Your task to perform on an android device: toggle notification dots Image 0: 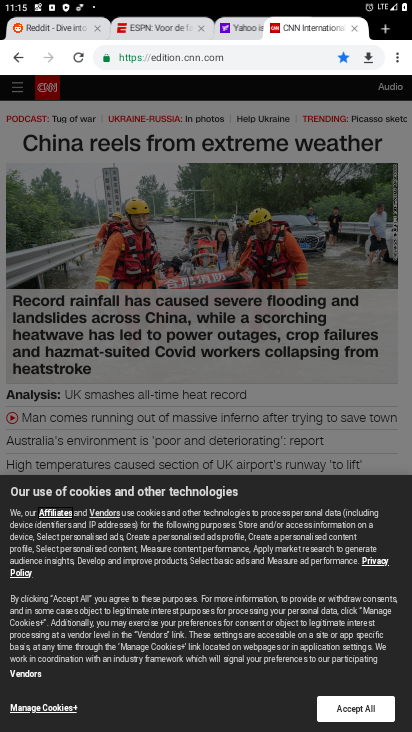
Step 0: press home button
Your task to perform on an android device: toggle notification dots Image 1: 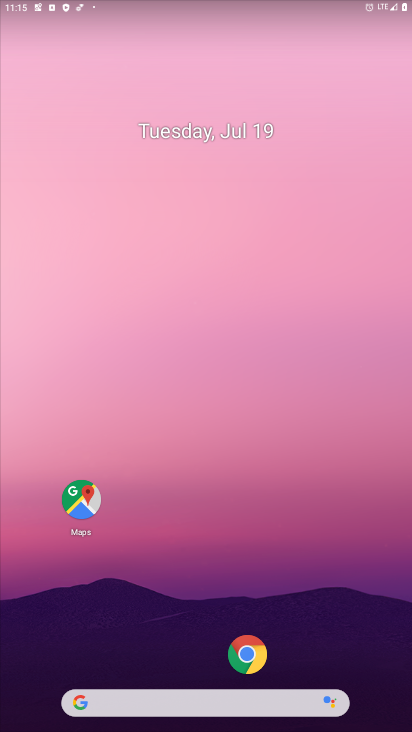
Step 1: drag from (174, 596) to (250, 193)
Your task to perform on an android device: toggle notification dots Image 2: 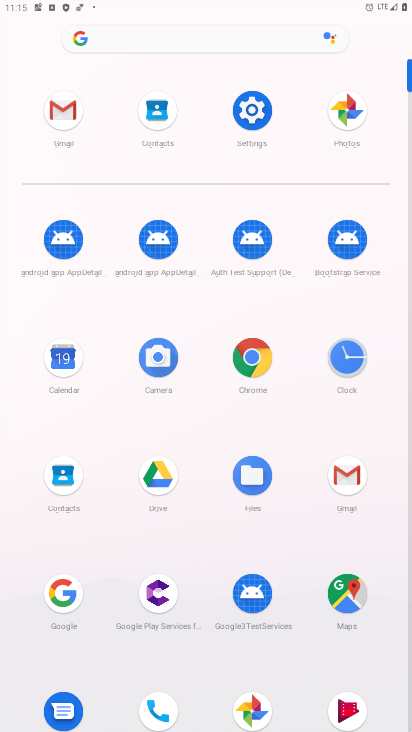
Step 2: click (265, 125)
Your task to perform on an android device: toggle notification dots Image 3: 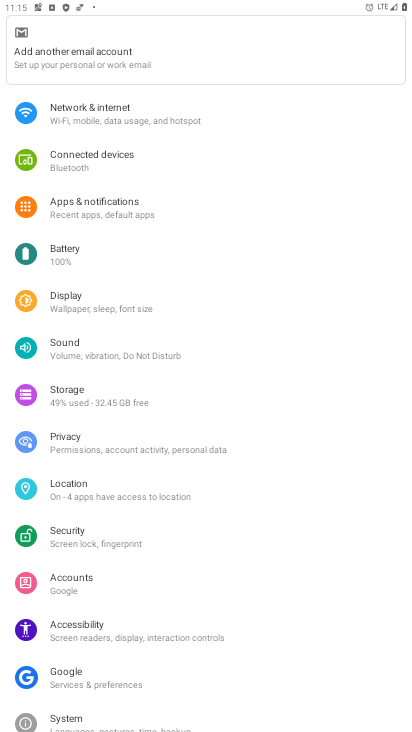
Step 3: click (90, 207)
Your task to perform on an android device: toggle notification dots Image 4: 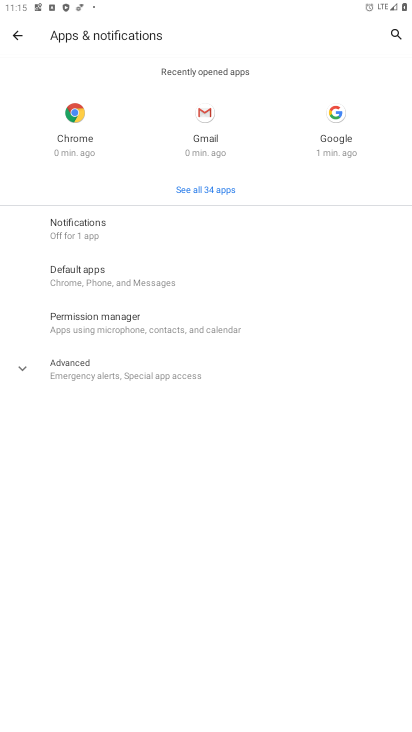
Step 4: click (90, 207)
Your task to perform on an android device: toggle notification dots Image 5: 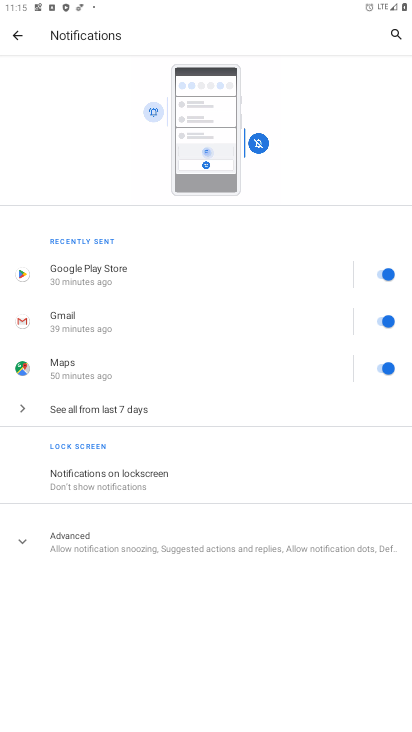
Step 5: click (147, 570)
Your task to perform on an android device: toggle notification dots Image 6: 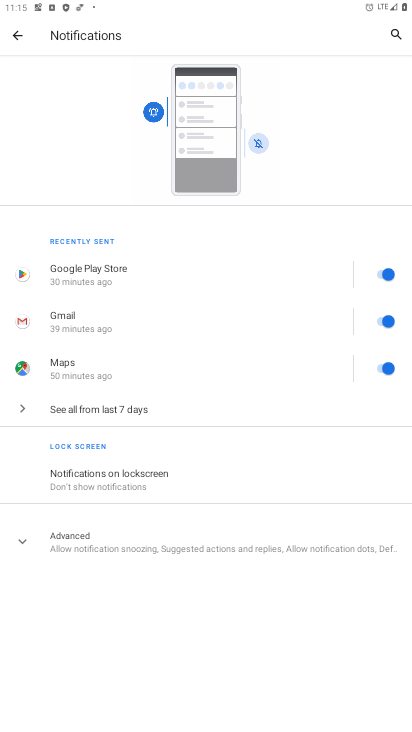
Step 6: click (130, 549)
Your task to perform on an android device: toggle notification dots Image 7: 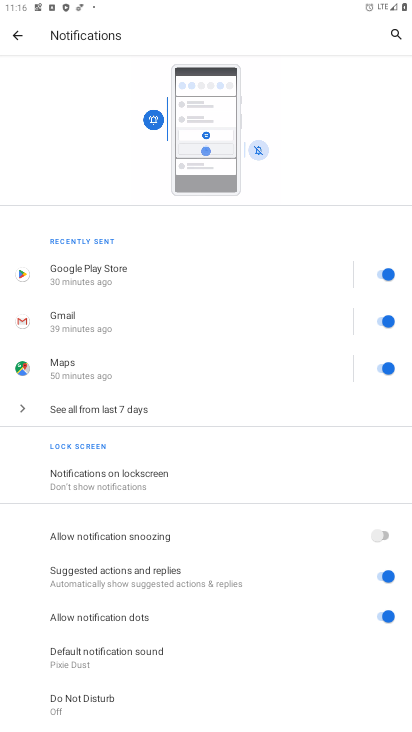
Step 7: click (380, 618)
Your task to perform on an android device: toggle notification dots Image 8: 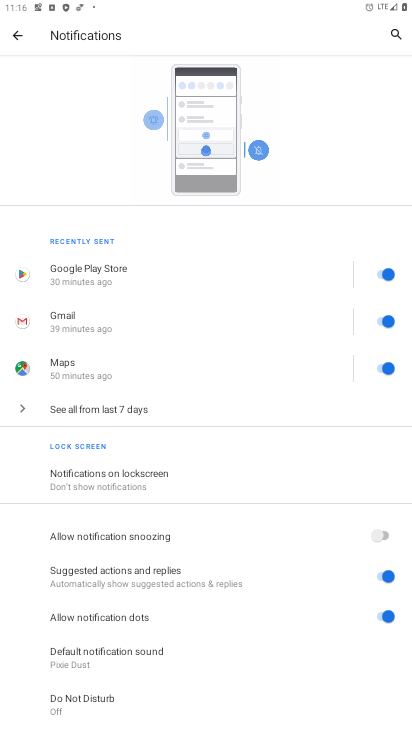
Step 8: click (380, 618)
Your task to perform on an android device: toggle notification dots Image 9: 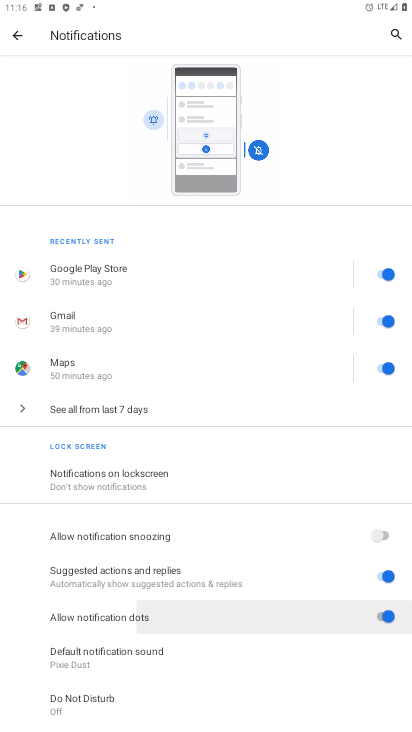
Step 9: click (380, 618)
Your task to perform on an android device: toggle notification dots Image 10: 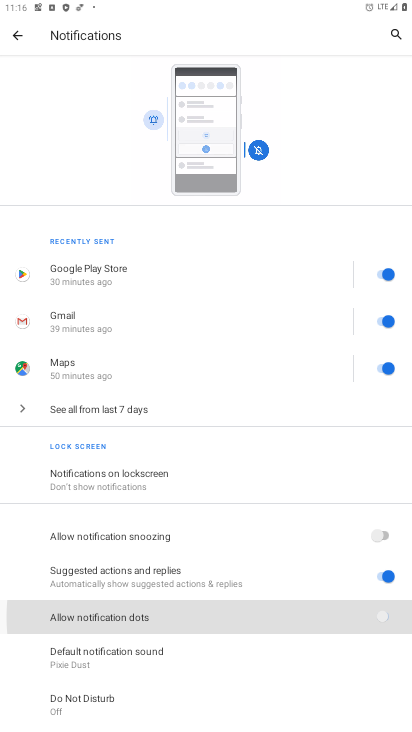
Step 10: click (380, 618)
Your task to perform on an android device: toggle notification dots Image 11: 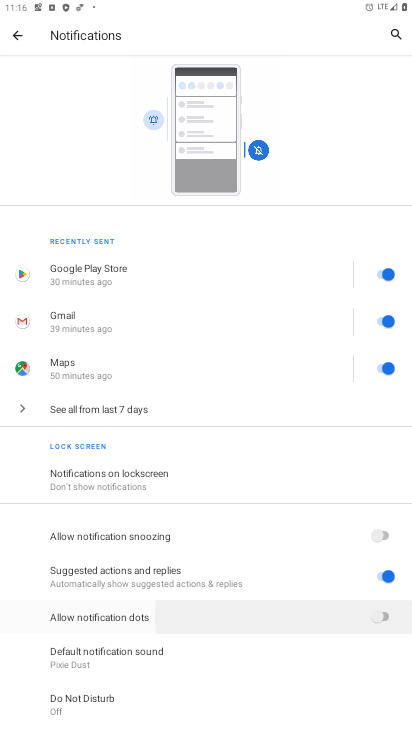
Step 11: click (380, 618)
Your task to perform on an android device: toggle notification dots Image 12: 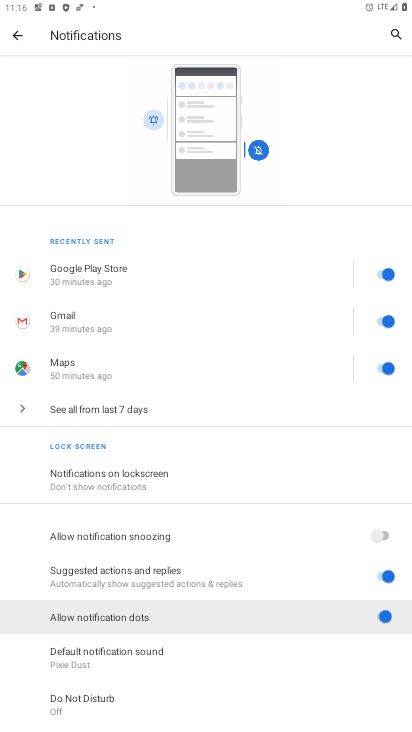
Step 12: click (380, 618)
Your task to perform on an android device: toggle notification dots Image 13: 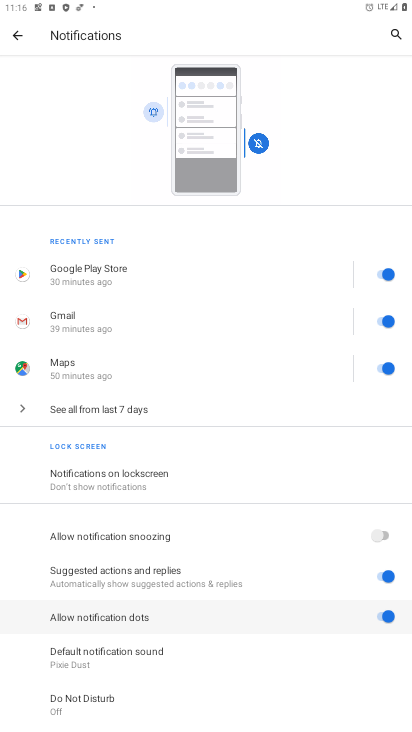
Step 13: click (380, 618)
Your task to perform on an android device: toggle notification dots Image 14: 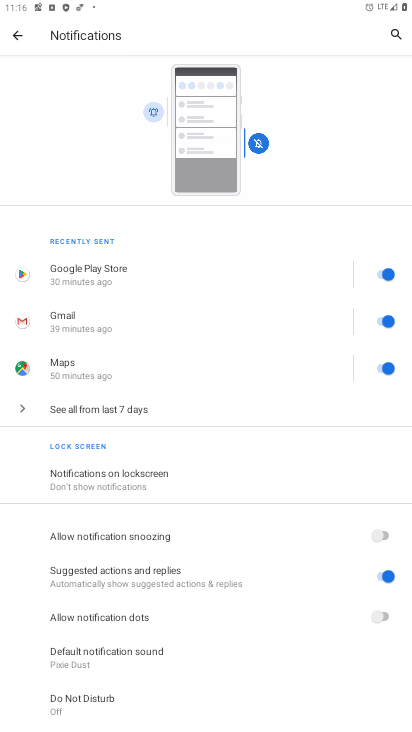
Step 14: task complete